Your task to perform on an android device: turn off javascript in the chrome app Image 0: 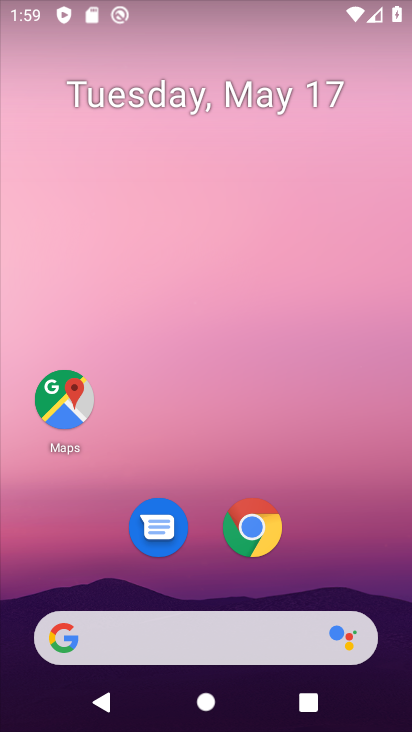
Step 0: drag from (83, 594) to (215, 65)
Your task to perform on an android device: turn off javascript in the chrome app Image 1: 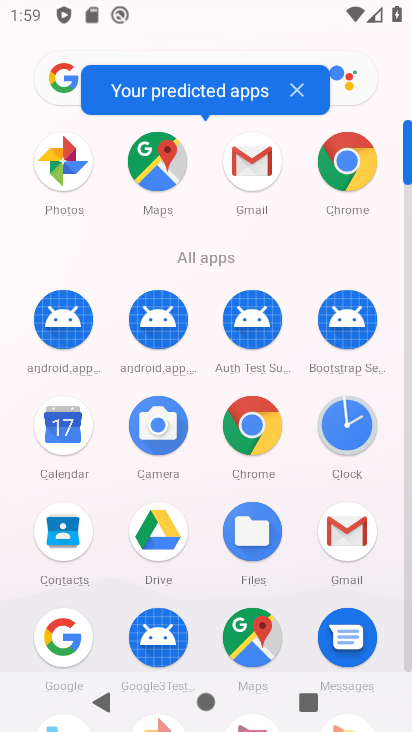
Step 1: drag from (184, 570) to (234, 365)
Your task to perform on an android device: turn off javascript in the chrome app Image 2: 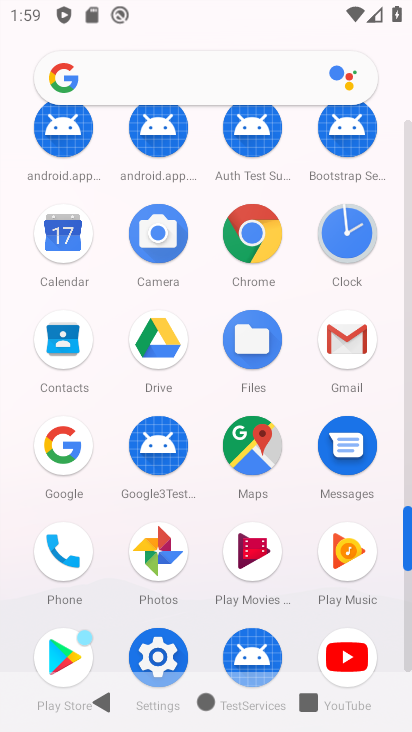
Step 2: click (263, 240)
Your task to perform on an android device: turn off javascript in the chrome app Image 3: 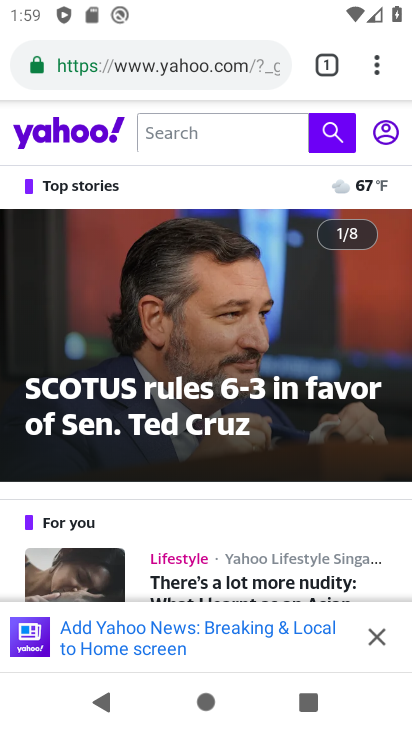
Step 3: drag from (385, 61) to (212, 577)
Your task to perform on an android device: turn off javascript in the chrome app Image 4: 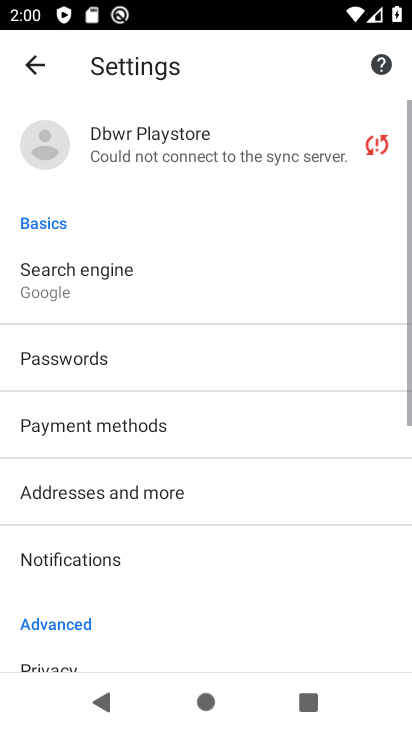
Step 4: drag from (185, 536) to (352, 267)
Your task to perform on an android device: turn off javascript in the chrome app Image 5: 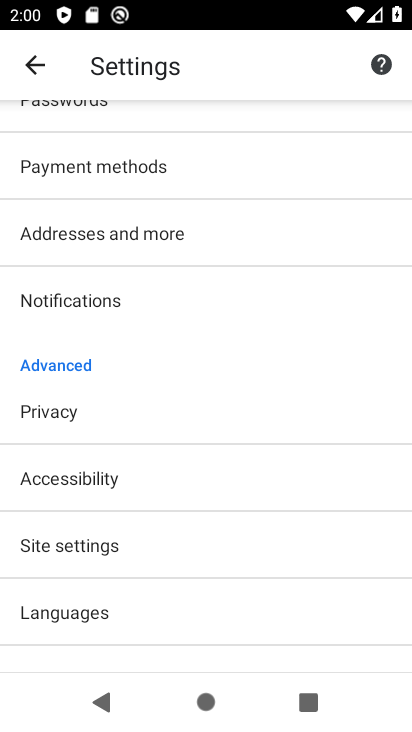
Step 5: click (157, 543)
Your task to perform on an android device: turn off javascript in the chrome app Image 6: 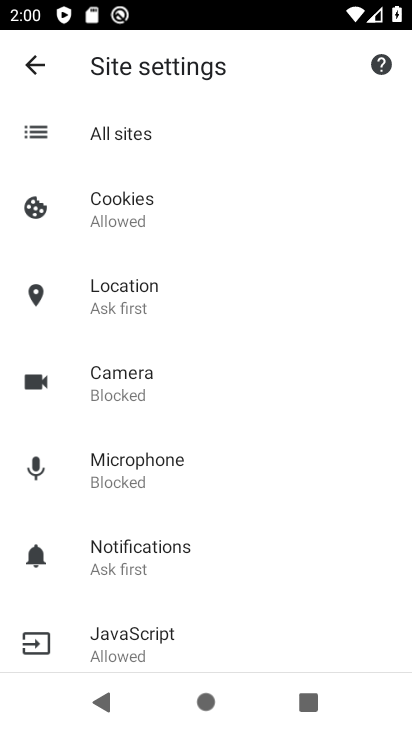
Step 6: drag from (175, 554) to (263, 211)
Your task to perform on an android device: turn off javascript in the chrome app Image 7: 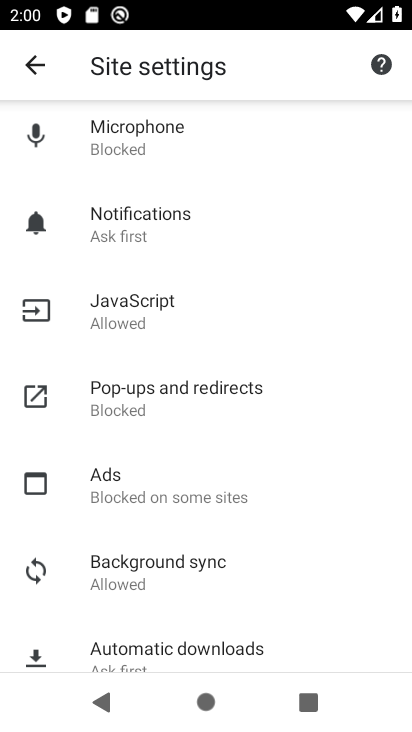
Step 7: click (202, 312)
Your task to perform on an android device: turn off javascript in the chrome app Image 8: 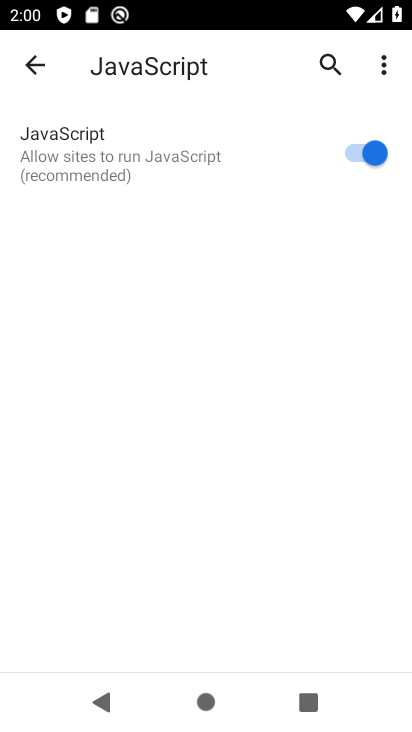
Step 8: click (339, 149)
Your task to perform on an android device: turn off javascript in the chrome app Image 9: 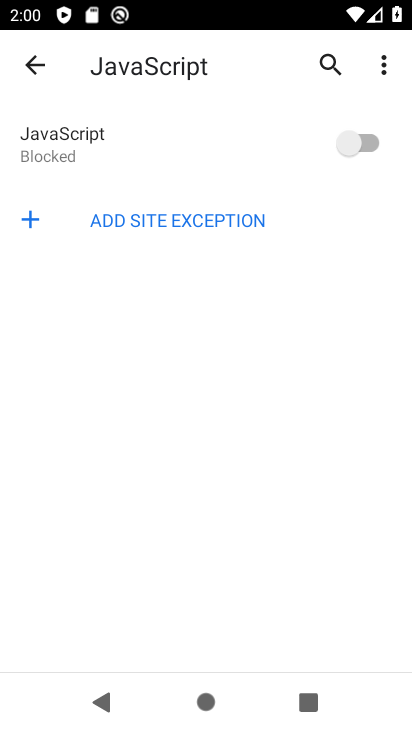
Step 9: task complete